Your task to perform on an android device: When is my next appointment? Image 0: 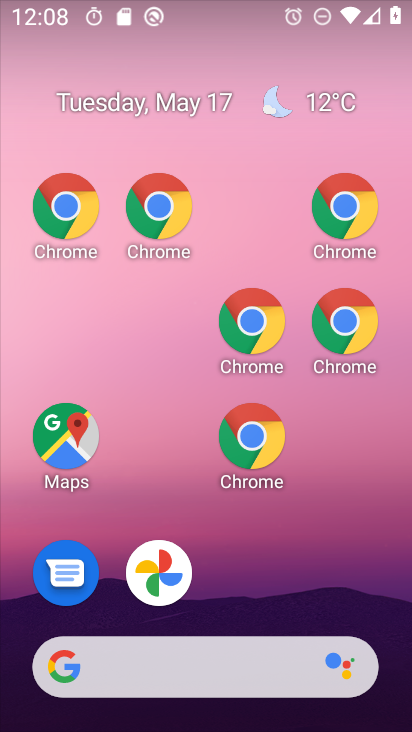
Step 0: drag from (350, 631) to (311, 0)
Your task to perform on an android device: When is my next appointment? Image 1: 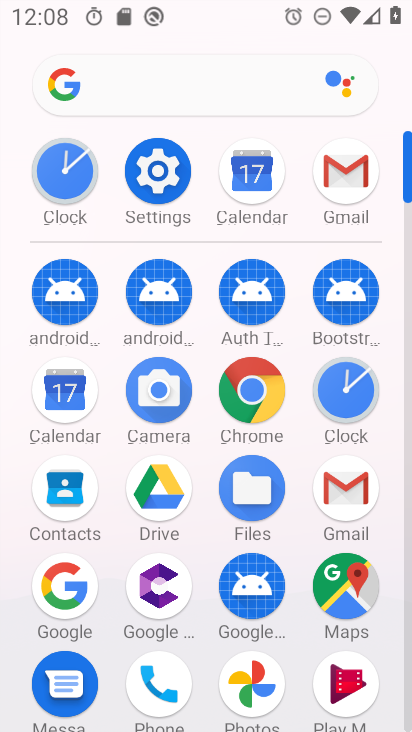
Step 1: click (63, 411)
Your task to perform on an android device: When is my next appointment? Image 2: 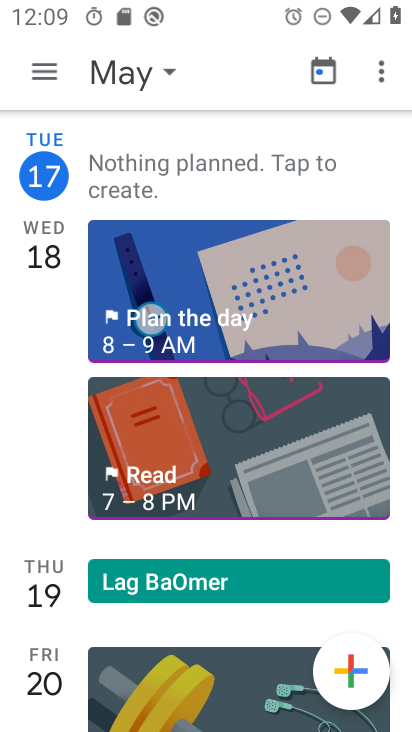
Step 2: drag from (167, 600) to (133, 193)
Your task to perform on an android device: When is my next appointment? Image 3: 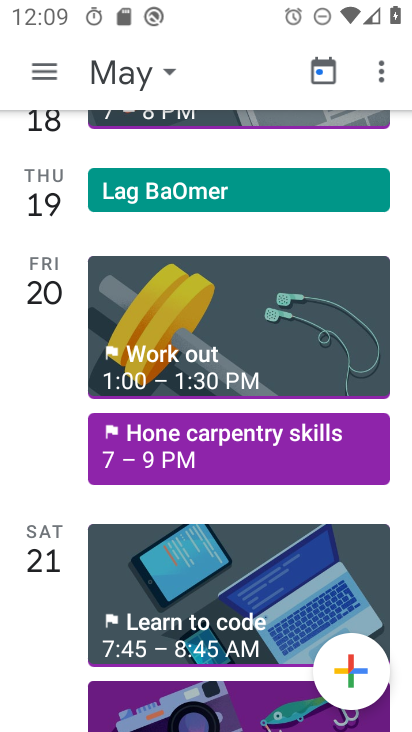
Step 3: drag from (161, 566) to (205, 243)
Your task to perform on an android device: When is my next appointment? Image 4: 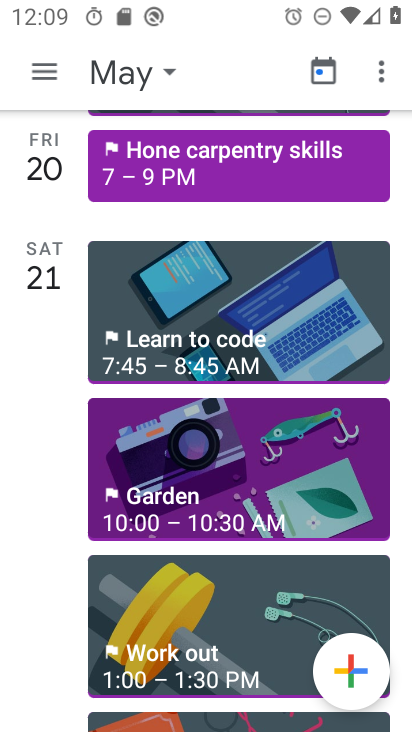
Step 4: drag from (144, 547) to (197, 172)
Your task to perform on an android device: When is my next appointment? Image 5: 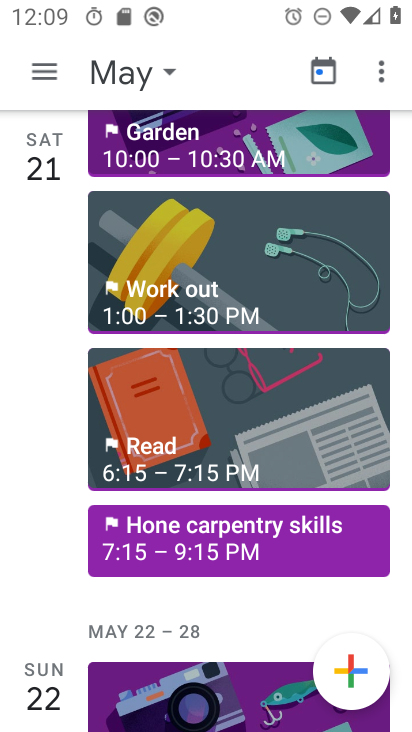
Step 5: drag from (168, 620) to (209, 284)
Your task to perform on an android device: When is my next appointment? Image 6: 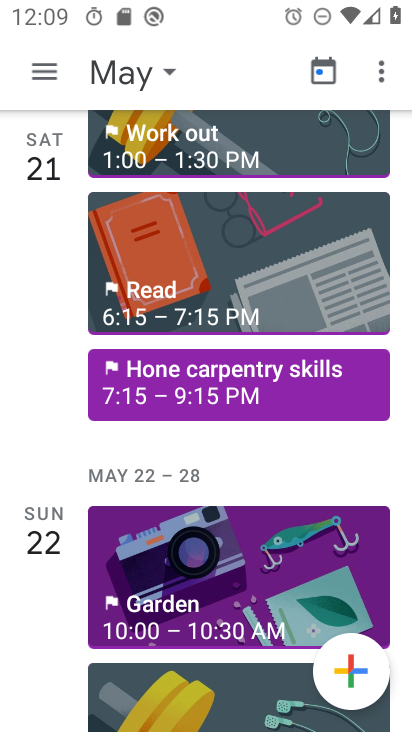
Step 6: drag from (211, 628) to (235, 241)
Your task to perform on an android device: When is my next appointment? Image 7: 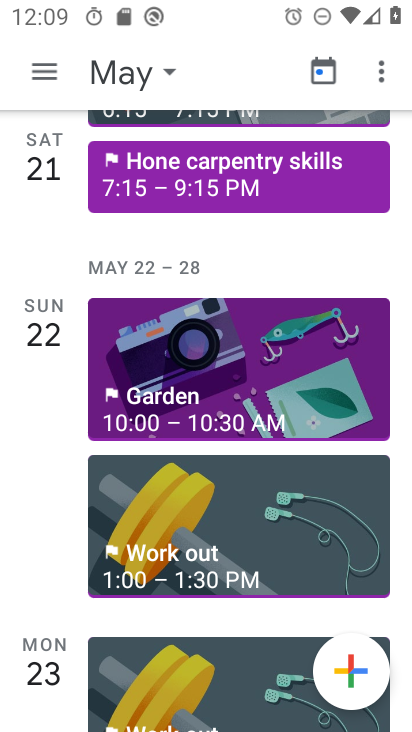
Step 7: drag from (203, 555) to (209, 297)
Your task to perform on an android device: When is my next appointment? Image 8: 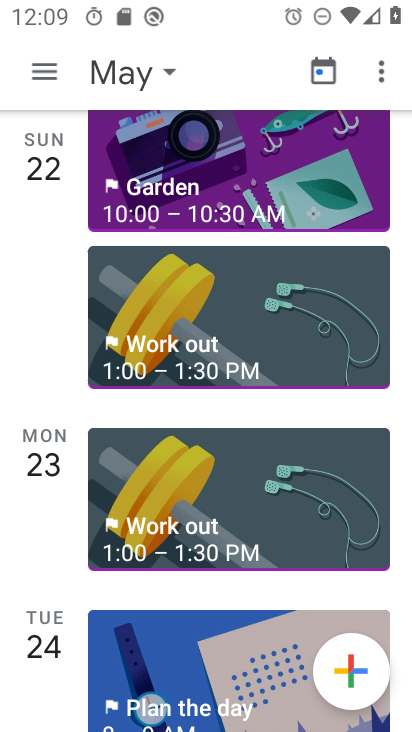
Step 8: drag from (231, 649) to (212, 368)
Your task to perform on an android device: When is my next appointment? Image 9: 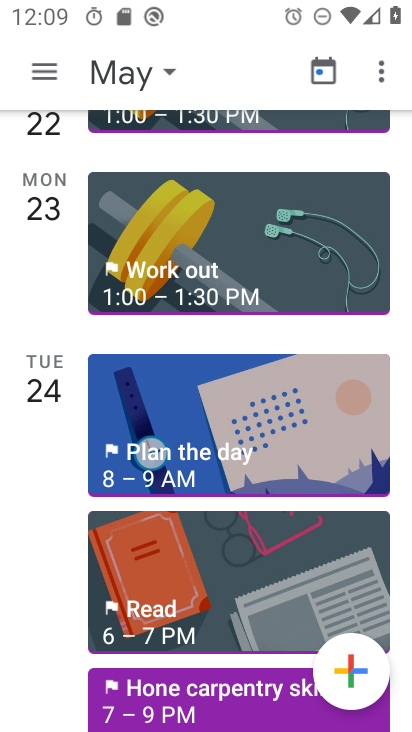
Step 9: click (197, 441)
Your task to perform on an android device: When is my next appointment? Image 10: 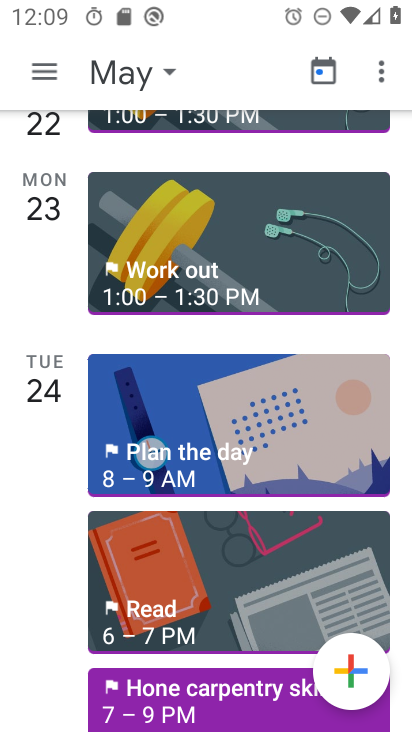
Step 10: click (197, 441)
Your task to perform on an android device: When is my next appointment? Image 11: 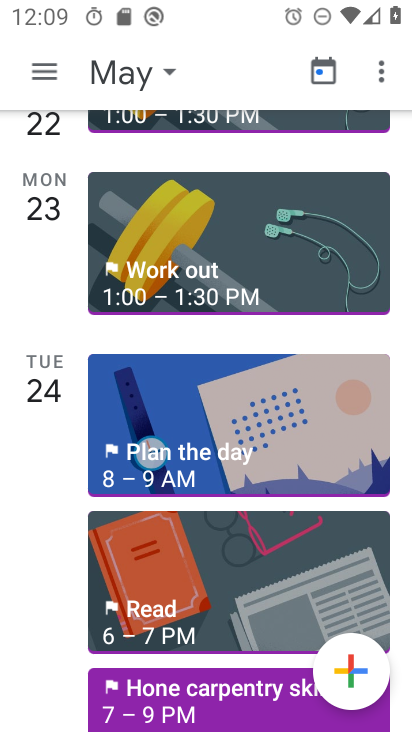
Step 11: task complete